Your task to perform on an android device: choose inbox layout in the gmail app Image 0: 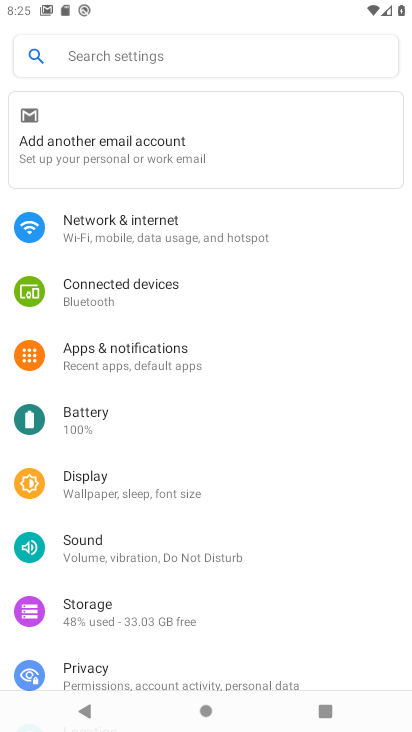
Step 0: press home button
Your task to perform on an android device: choose inbox layout in the gmail app Image 1: 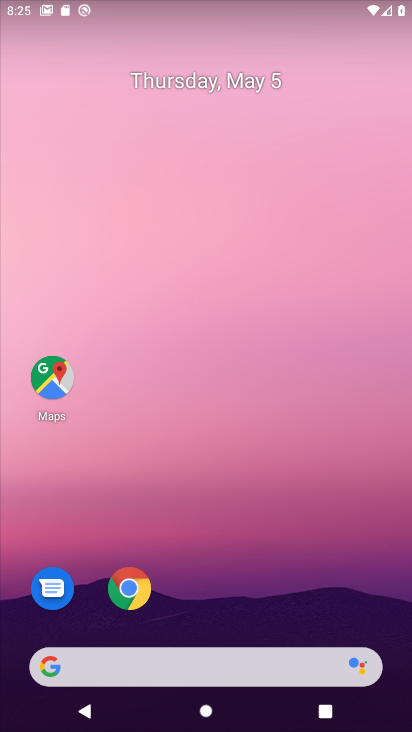
Step 1: drag from (224, 626) to (219, 54)
Your task to perform on an android device: choose inbox layout in the gmail app Image 2: 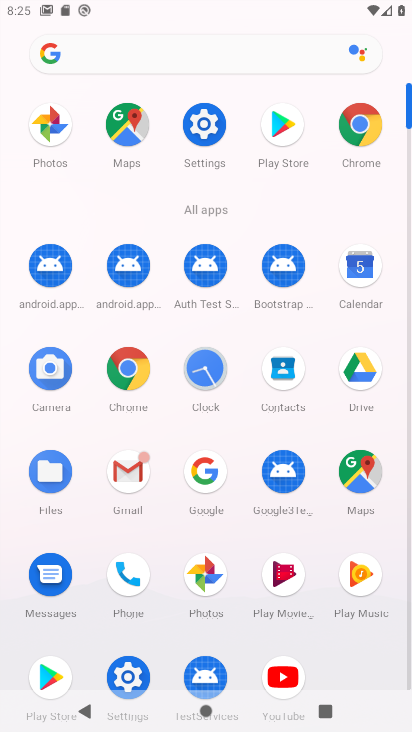
Step 2: click (124, 465)
Your task to perform on an android device: choose inbox layout in the gmail app Image 3: 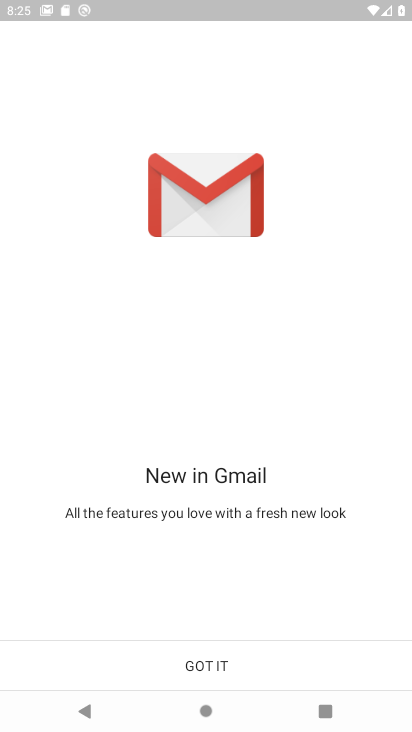
Step 3: click (205, 657)
Your task to perform on an android device: choose inbox layout in the gmail app Image 4: 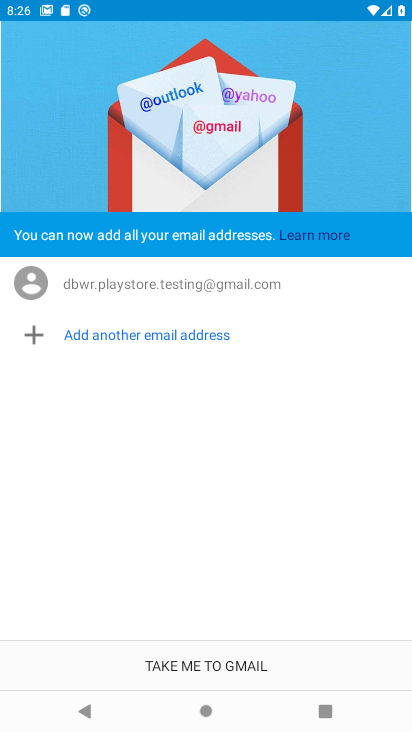
Step 4: click (200, 664)
Your task to perform on an android device: choose inbox layout in the gmail app Image 5: 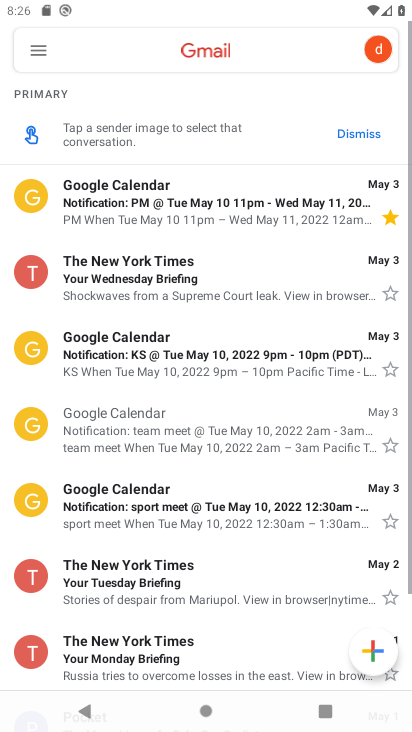
Step 5: click (39, 47)
Your task to perform on an android device: choose inbox layout in the gmail app Image 6: 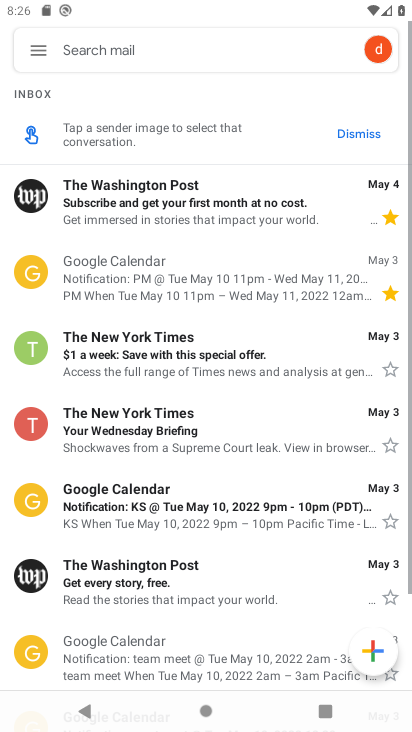
Step 6: click (39, 45)
Your task to perform on an android device: choose inbox layout in the gmail app Image 7: 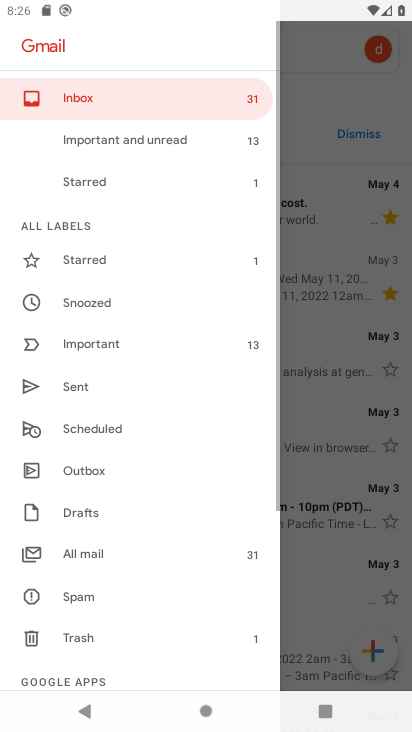
Step 7: drag from (127, 619) to (149, 86)
Your task to perform on an android device: choose inbox layout in the gmail app Image 8: 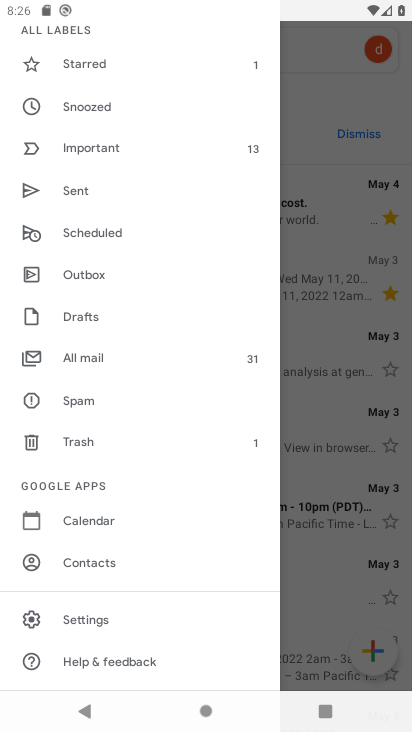
Step 8: click (124, 615)
Your task to perform on an android device: choose inbox layout in the gmail app Image 9: 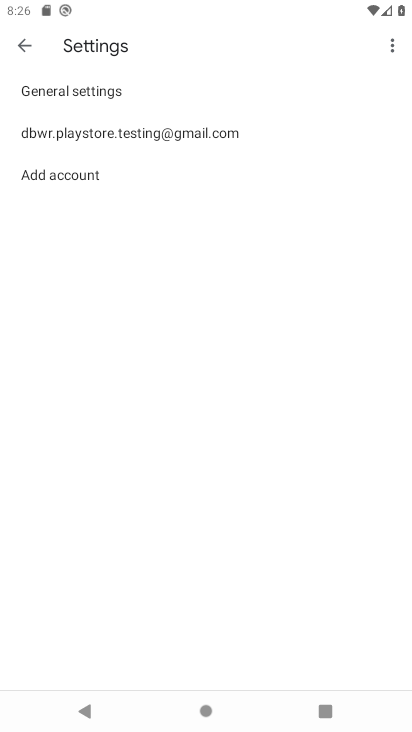
Step 9: click (130, 128)
Your task to perform on an android device: choose inbox layout in the gmail app Image 10: 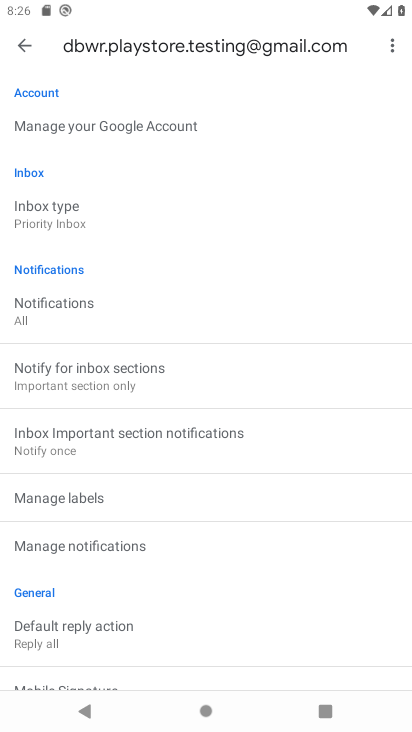
Step 10: click (89, 209)
Your task to perform on an android device: choose inbox layout in the gmail app Image 11: 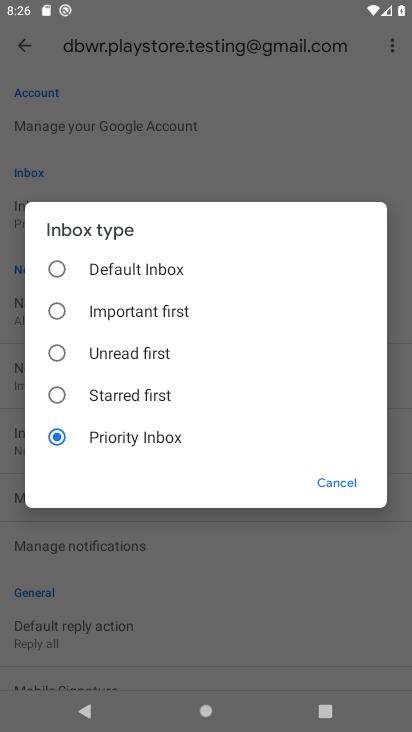
Step 11: click (55, 266)
Your task to perform on an android device: choose inbox layout in the gmail app Image 12: 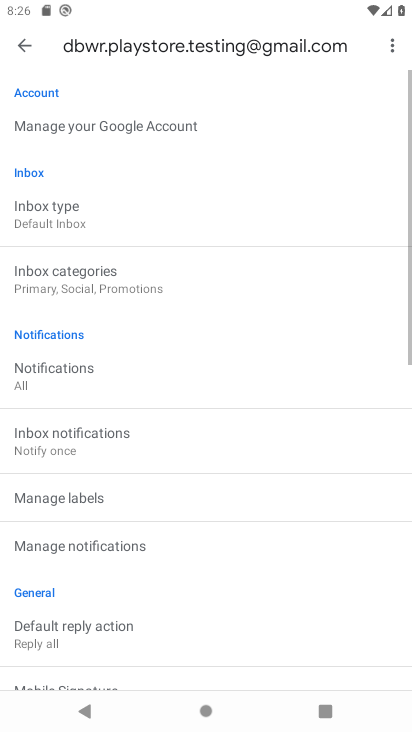
Step 12: task complete